Your task to perform on an android device: Go to Google maps Image 0: 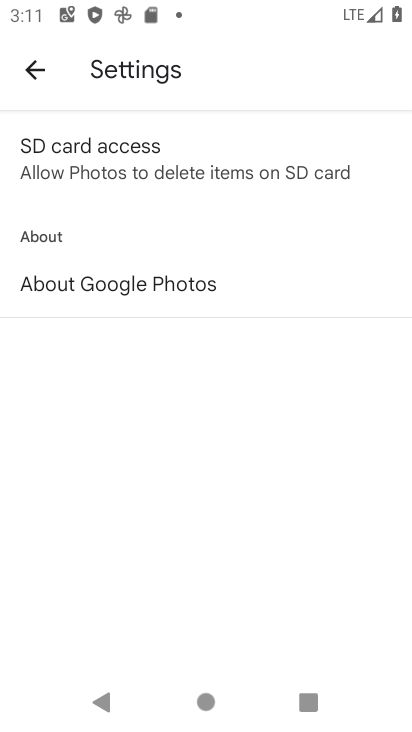
Step 0: press home button
Your task to perform on an android device: Go to Google maps Image 1: 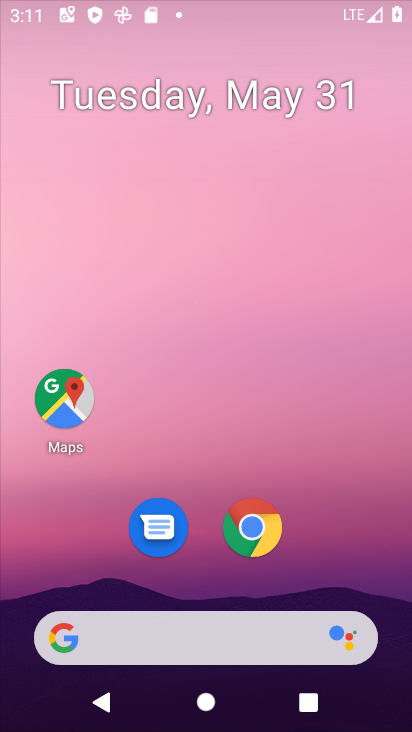
Step 1: drag from (341, 468) to (331, 24)
Your task to perform on an android device: Go to Google maps Image 2: 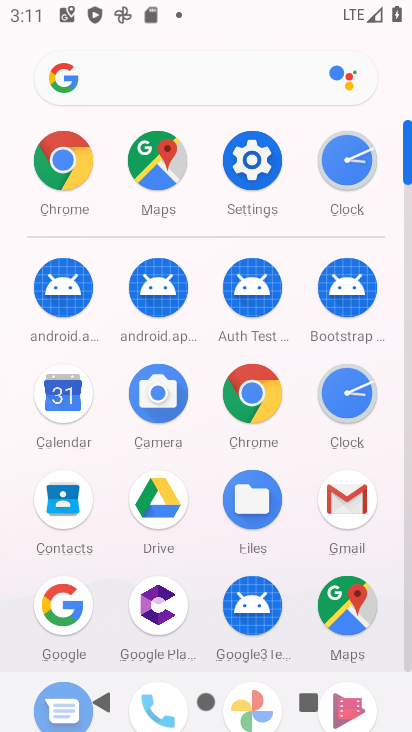
Step 2: click (356, 623)
Your task to perform on an android device: Go to Google maps Image 3: 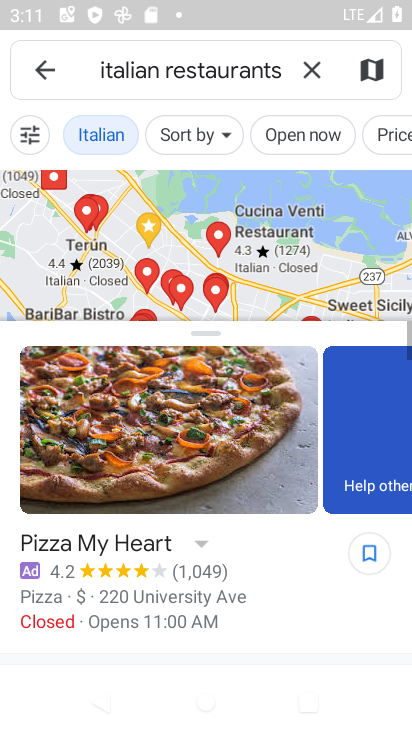
Step 3: task complete